Your task to perform on an android device: Open internet settings Image 0: 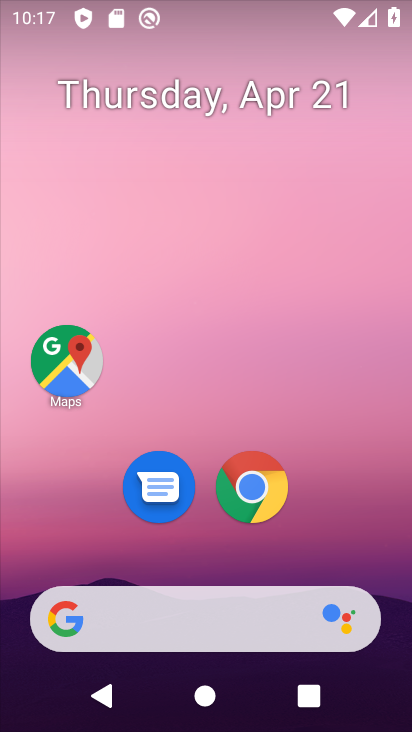
Step 0: drag from (352, 514) to (361, 126)
Your task to perform on an android device: Open internet settings Image 1: 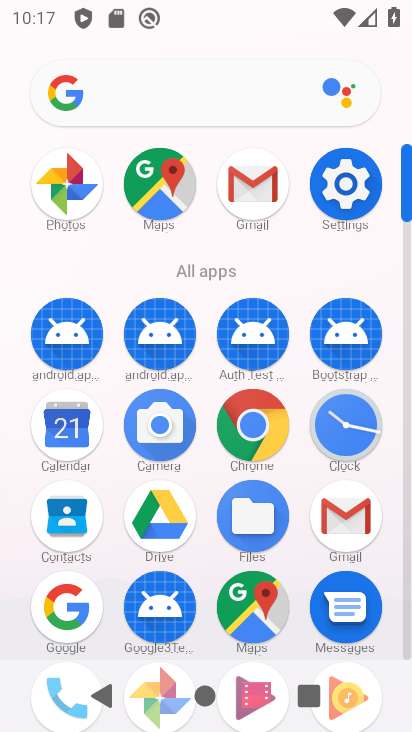
Step 1: click (351, 167)
Your task to perform on an android device: Open internet settings Image 2: 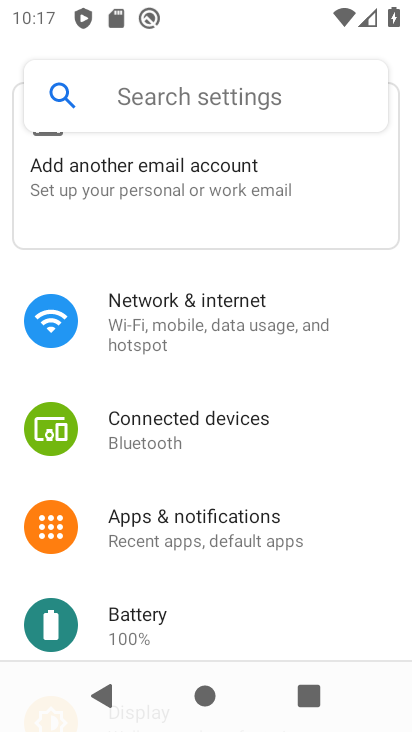
Step 2: click (264, 337)
Your task to perform on an android device: Open internet settings Image 3: 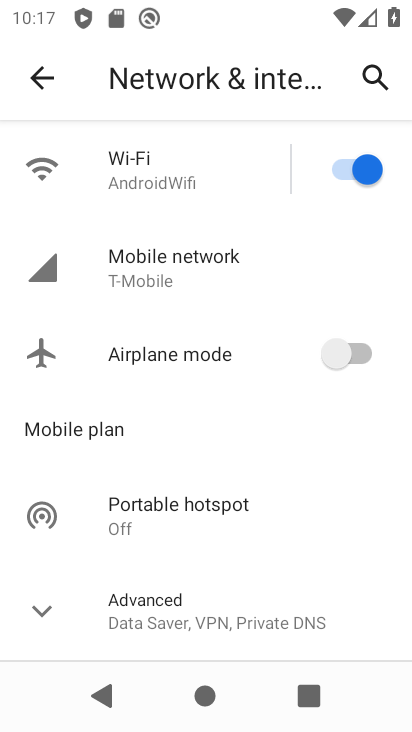
Step 3: click (157, 262)
Your task to perform on an android device: Open internet settings Image 4: 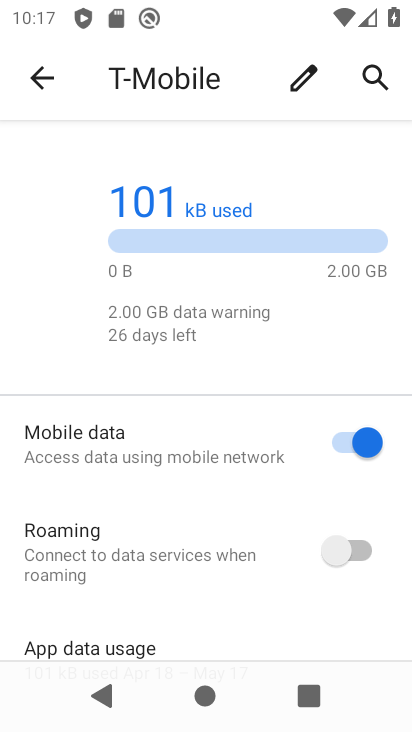
Step 4: task complete